Your task to perform on an android device: Open Google Image 0: 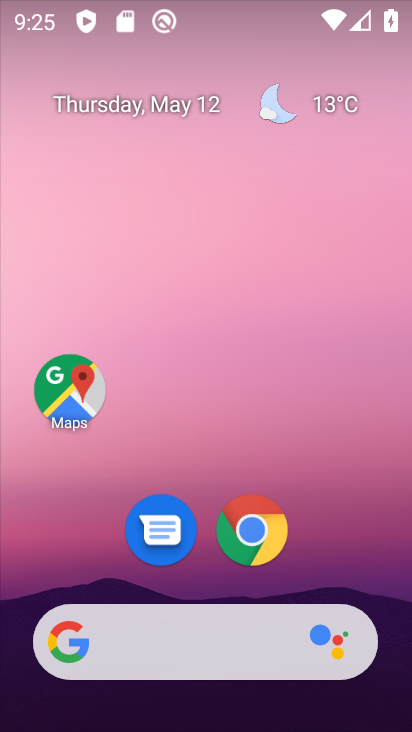
Step 0: drag from (311, 147) to (310, 37)
Your task to perform on an android device: Open Google Image 1: 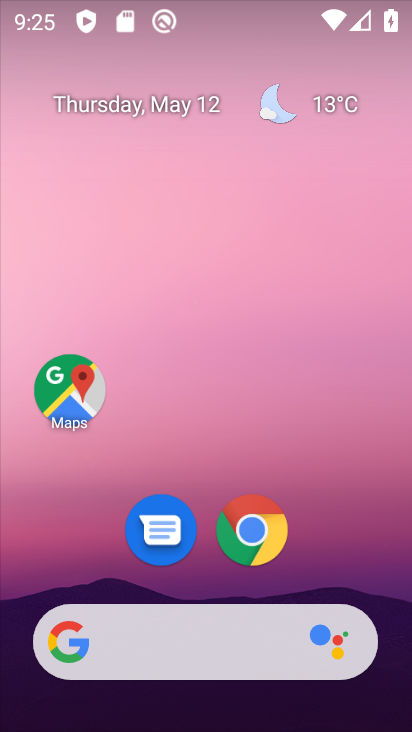
Step 1: drag from (334, 583) to (334, 99)
Your task to perform on an android device: Open Google Image 2: 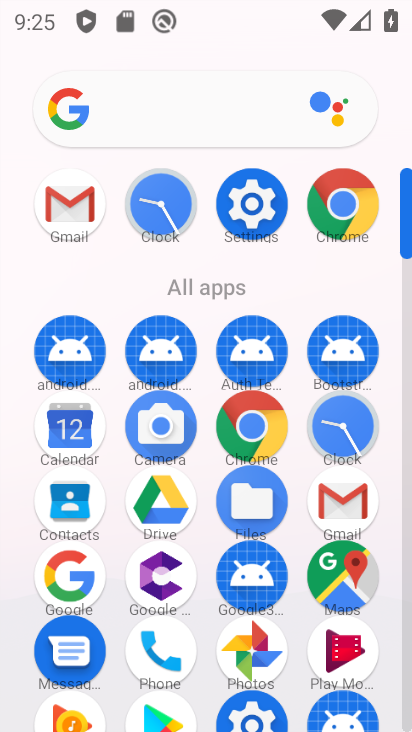
Step 2: click (134, 122)
Your task to perform on an android device: Open Google Image 3: 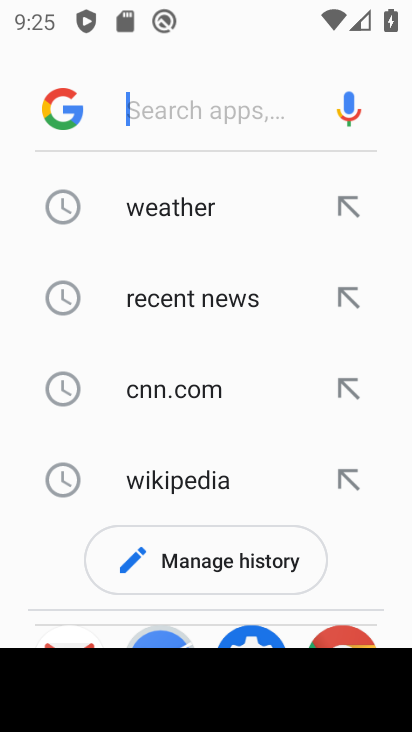
Step 3: task complete